Your task to perform on an android device: Set the phone to "Do not disturb". Image 0: 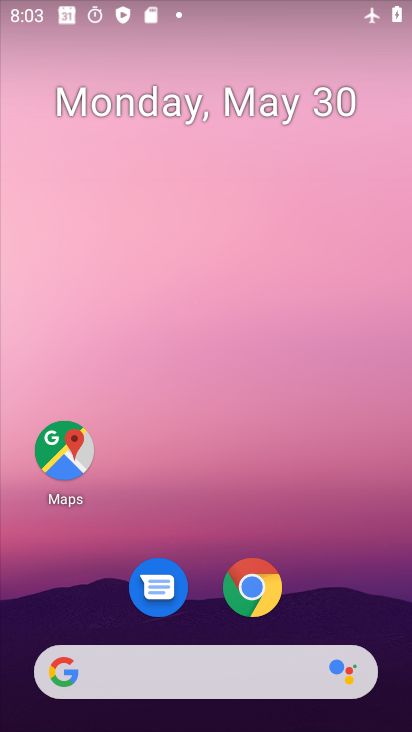
Step 0: drag from (361, 576) to (244, 11)
Your task to perform on an android device: Set the phone to "Do not disturb". Image 1: 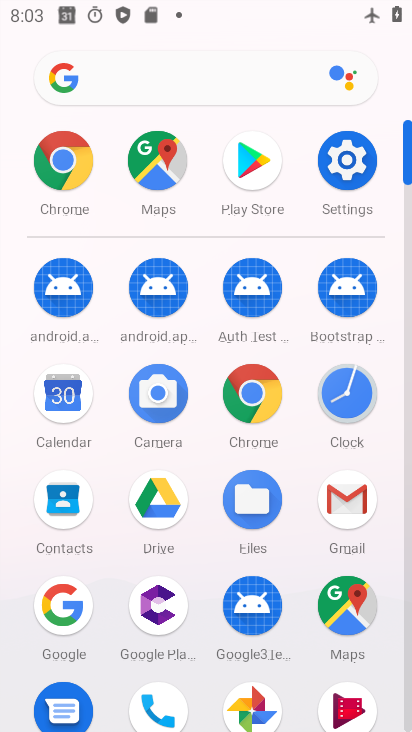
Step 1: drag from (0, 499) to (21, 178)
Your task to perform on an android device: Set the phone to "Do not disturb". Image 2: 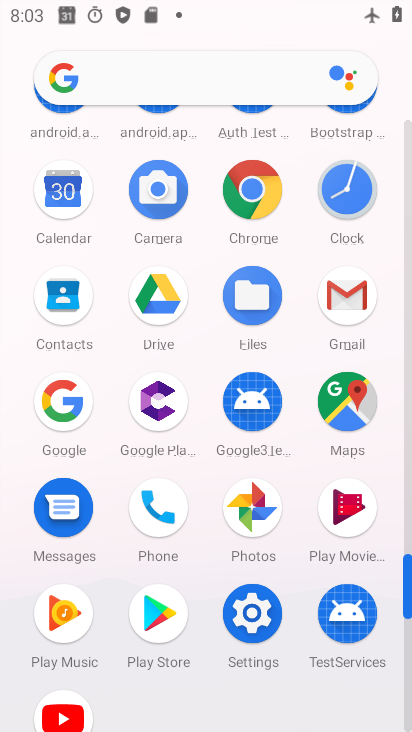
Step 2: click (253, 610)
Your task to perform on an android device: Set the phone to "Do not disturb". Image 3: 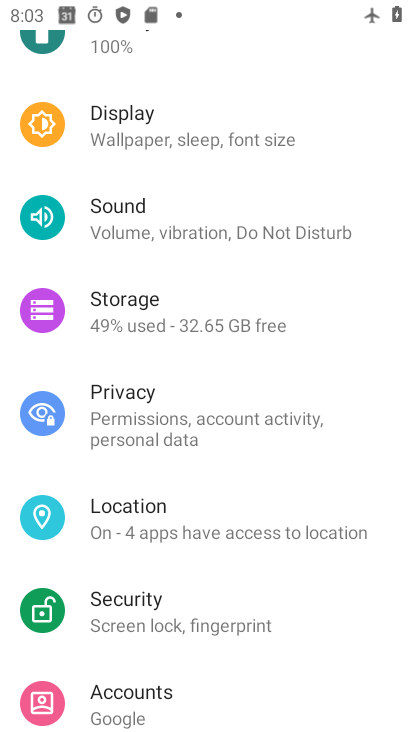
Step 3: drag from (264, 523) to (269, 129)
Your task to perform on an android device: Set the phone to "Do not disturb". Image 4: 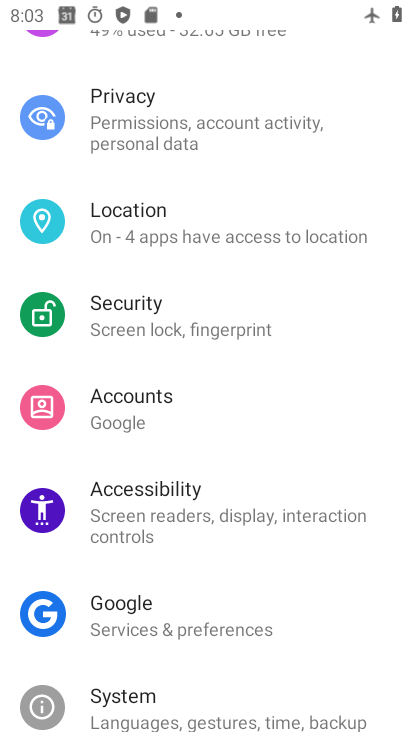
Step 4: drag from (264, 562) to (297, 112)
Your task to perform on an android device: Set the phone to "Do not disturb". Image 5: 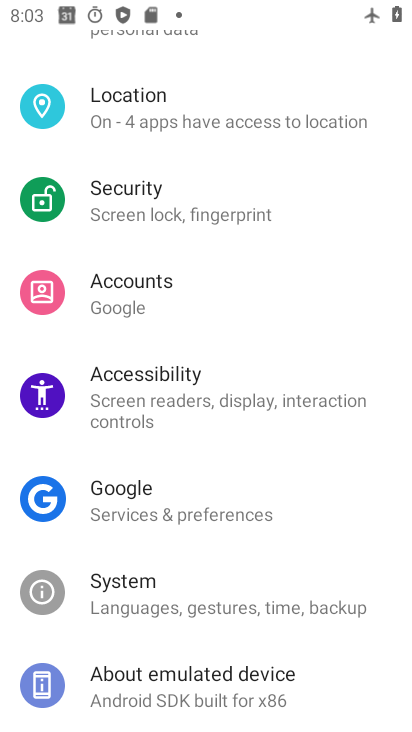
Step 5: drag from (288, 168) to (268, 691)
Your task to perform on an android device: Set the phone to "Do not disturb". Image 6: 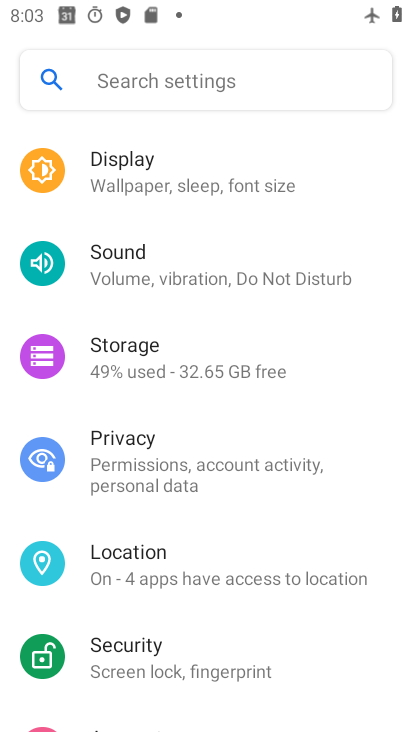
Step 6: drag from (245, 223) to (244, 634)
Your task to perform on an android device: Set the phone to "Do not disturb". Image 7: 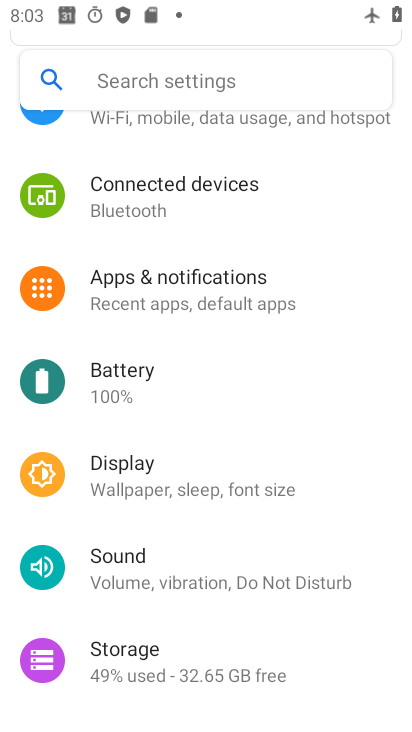
Step 7: drag from (238, 221) to (246, 652)
Your task to perform on an android device: Set the phone to "Do not disturb". Image 8: 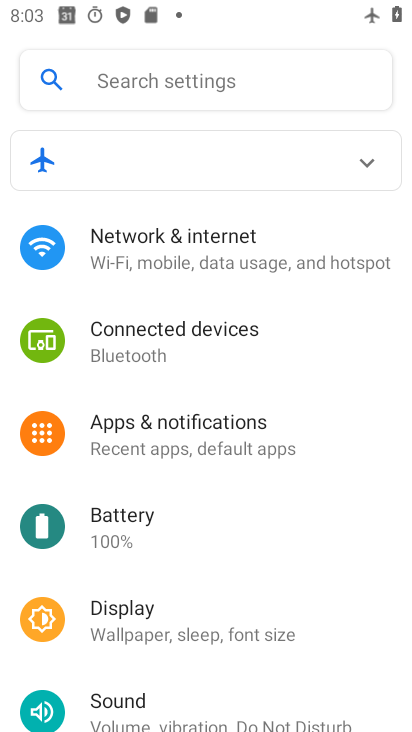
Step 8: drag from (290, 583) to (301, 183)
Your task to perform on an android device: Set the phone to "Do not disturb". Image 9: 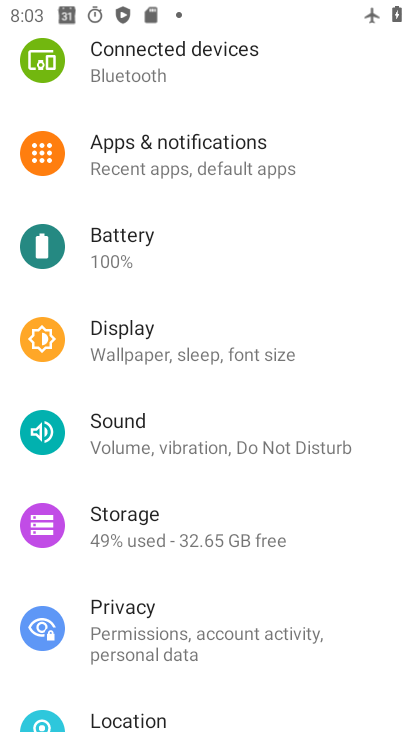
Step 9: click (193, 433)
Your task to perform on an android device: Set the phone to "Do not disturb". Image 10: 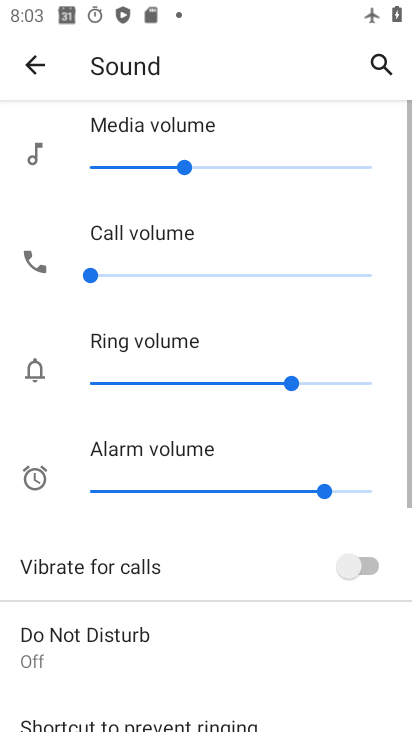
Step 10: drag from (239, 667) to (242, 157)
Your task to perform on an android device: Set the phone to "Do not disturb". Image 11: 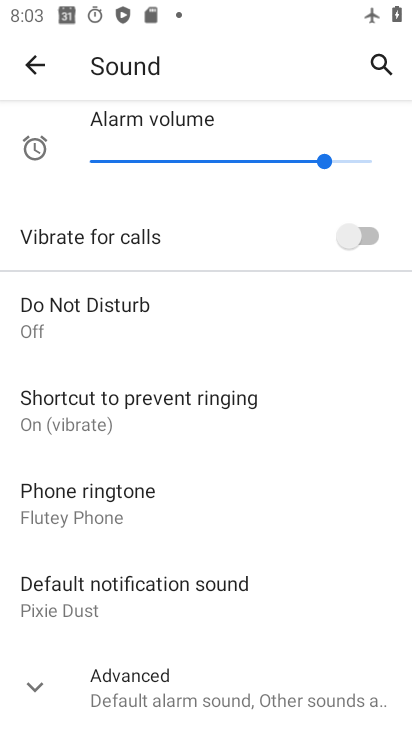
Step 11: click (97, 306)
Your task to perform on an android device: Set the phone to "Do not disturb". Image 12: 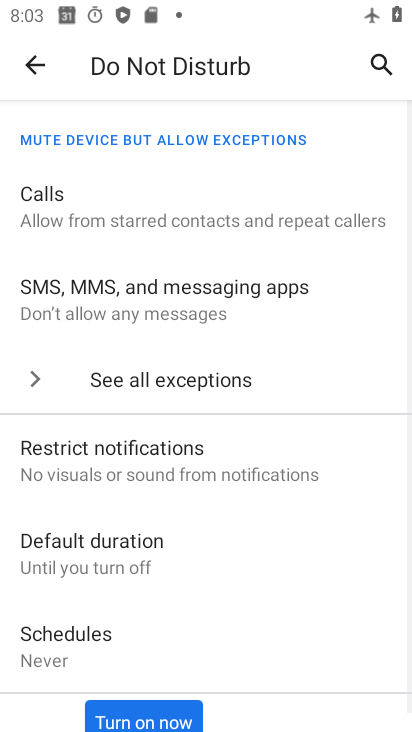
Step 12: click (136, 710)
Your task to perform on an android device: Set the phone to "Do not disturb". Image 13: 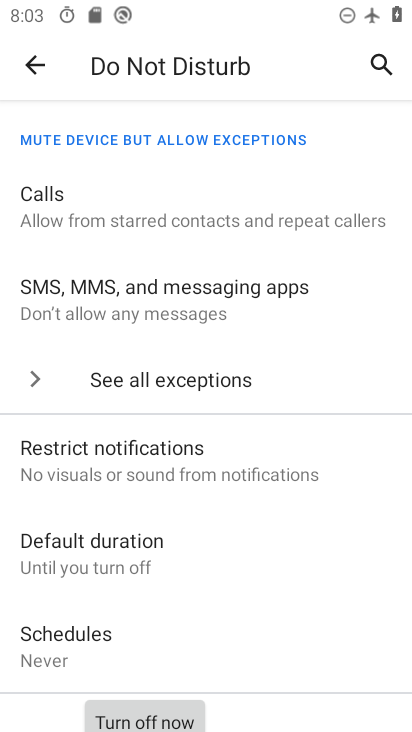
Step 13: task complete